Your task to perform on an android device: Search for vegetarian restaurants on Maps Image 0: 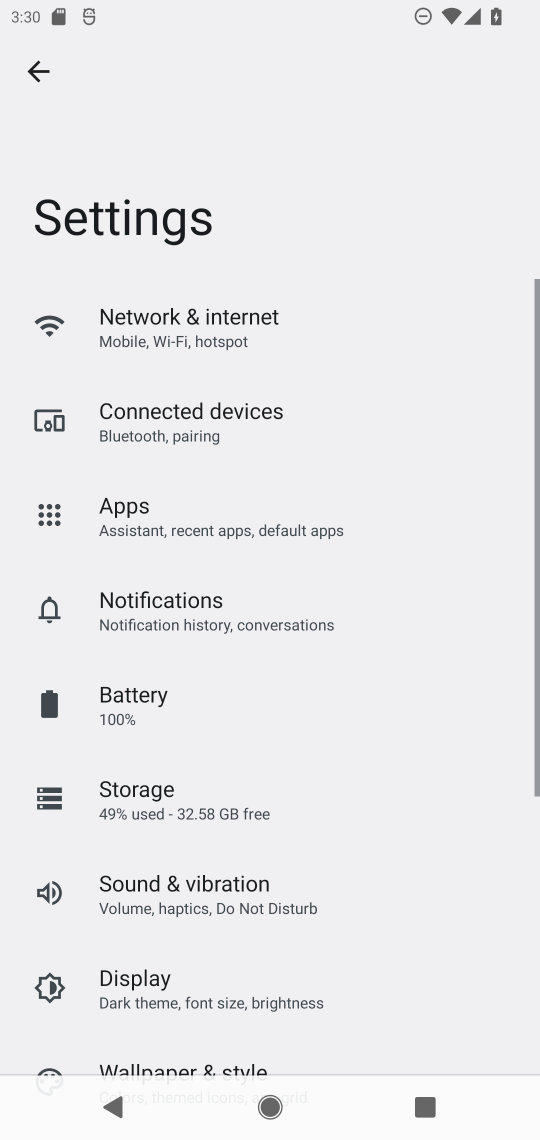
Step 0: press home button
Your task to perform on an android device: Search for vegetarian restaurants on Maps Image 1: 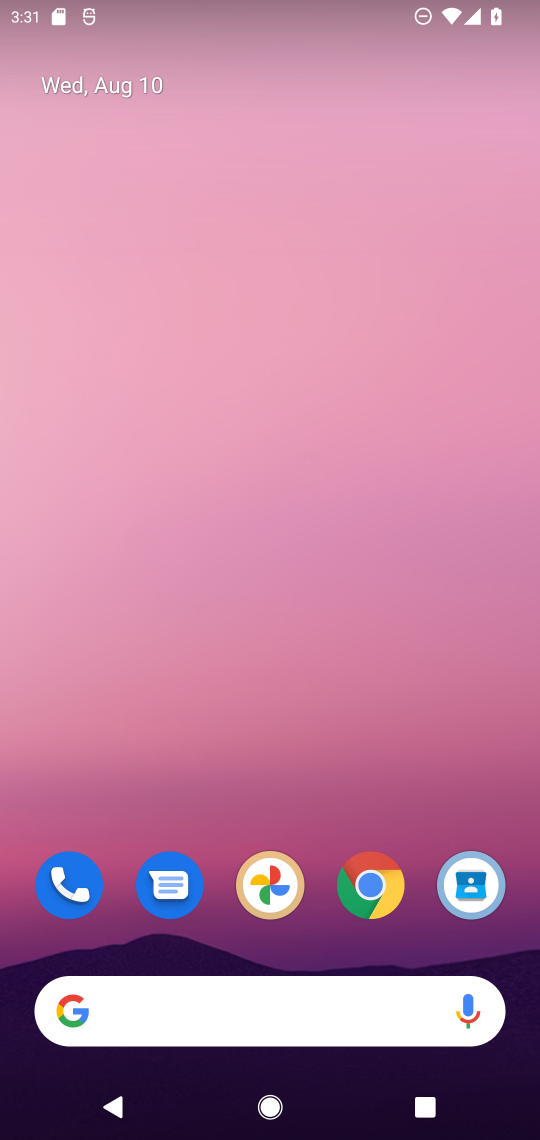
Step 1: drag from (321, 935) to (272, 278)
Your task to perform on an android device: Search for vegetarian restaurants on Maps Image 2: 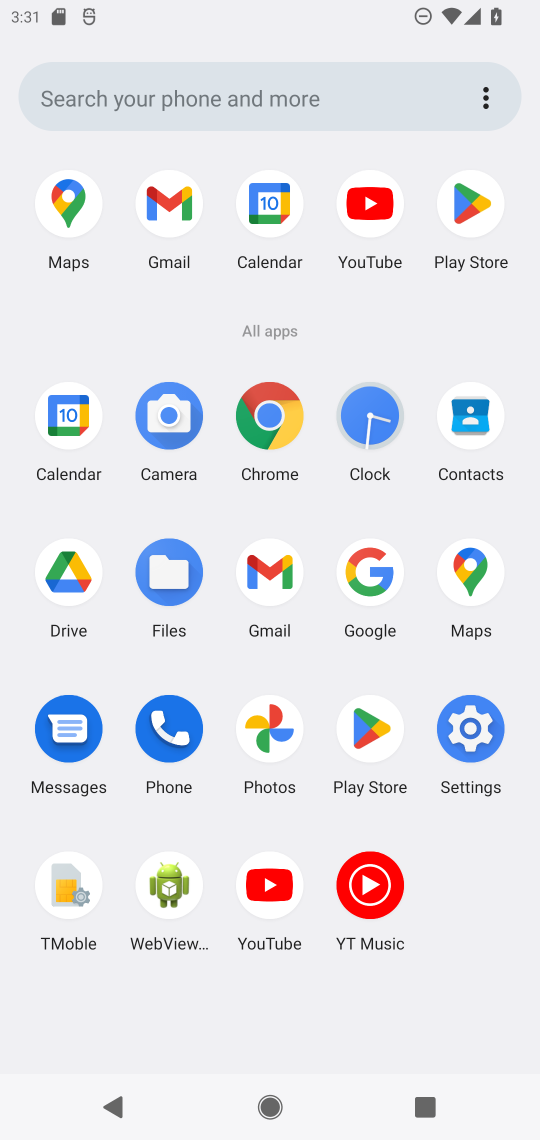
Step 2: click (73, 195)
Your task to perform on an android device: Search for vegetarian restaurants on Maps Image 3: 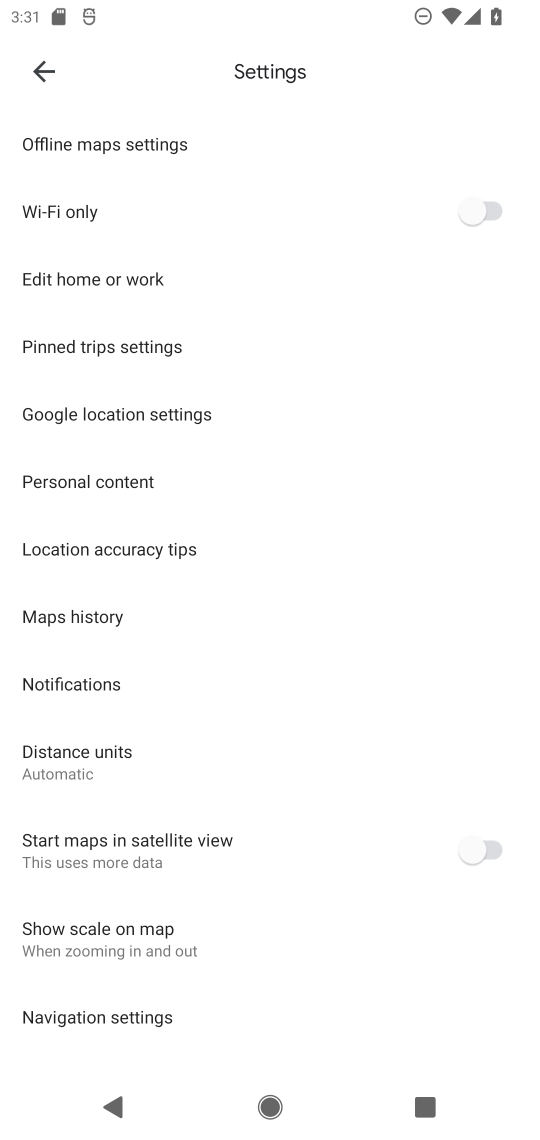
Step 3: click (46, 66)
Your task to perform on an android device: Search for vegetarian restaurants on Maps Image 4: 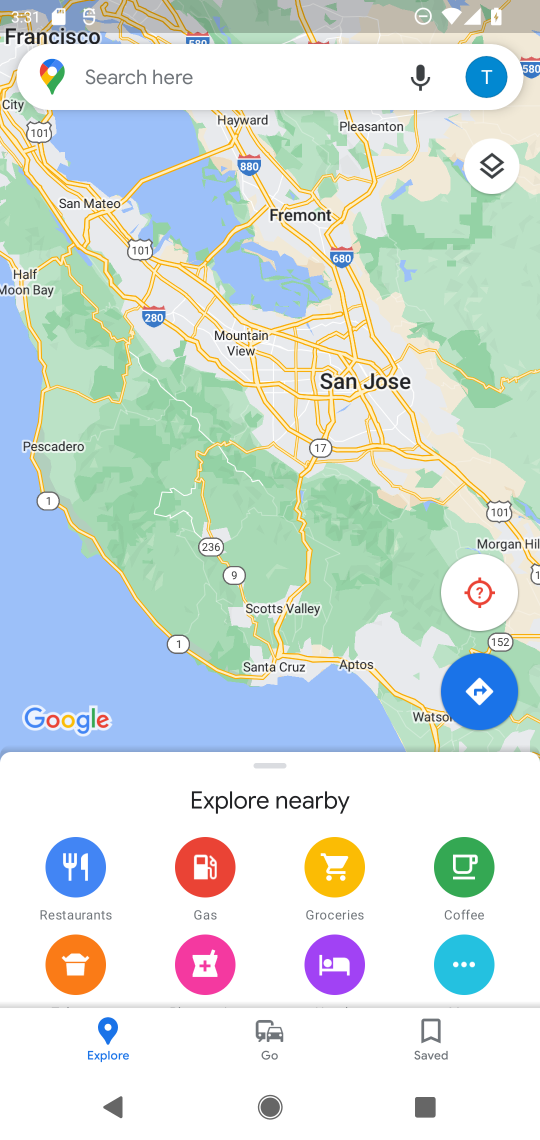
Step 4: click (192, 77)
Your task to perform on an android device: Search for vegetarian restaurants on Maps Image 5: 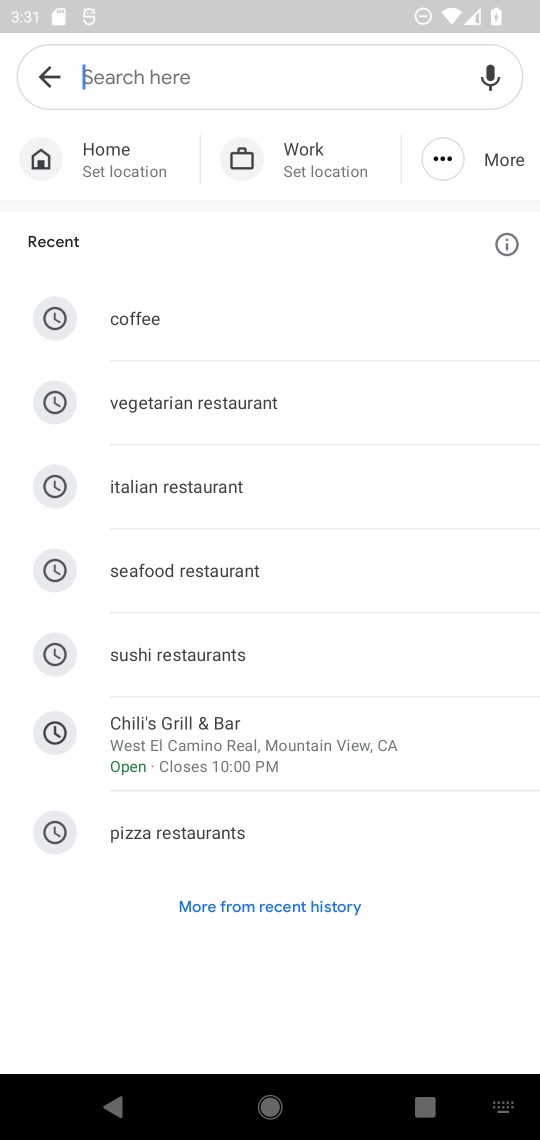
Step 5: click (183, 397)
Your task to perform on an android device: Search for vegetarian restaurants on Maps Image 6: 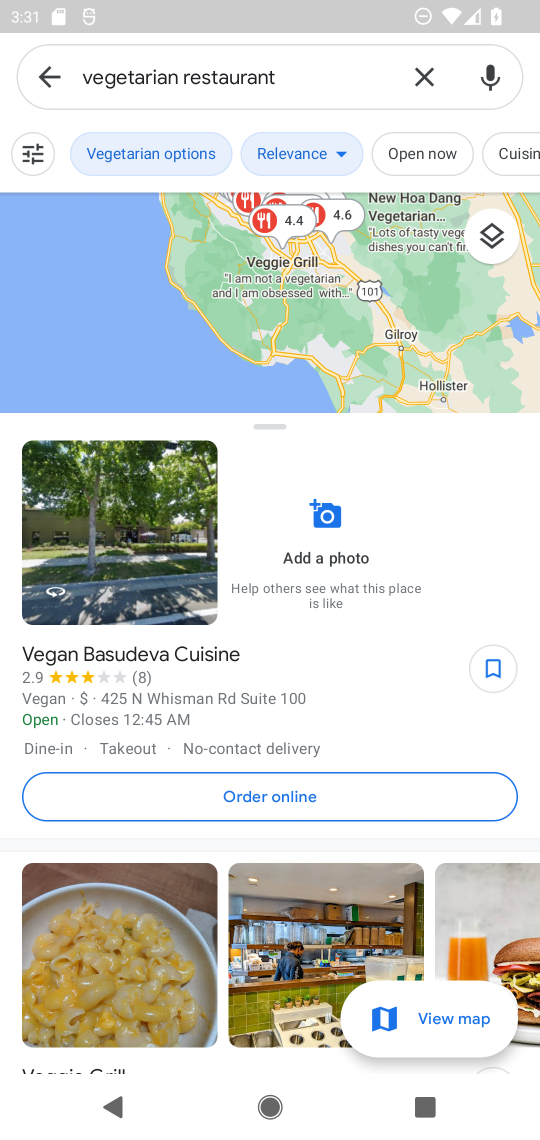
Step 6: task complete